Your task to perform on an android device: create a new album in the google photos Image 0: 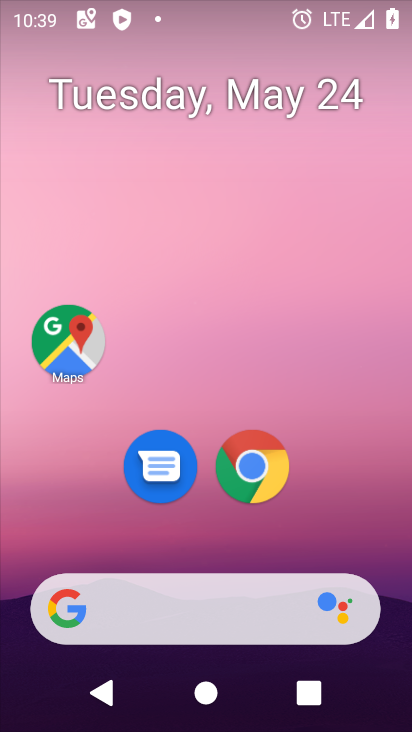
Step 0: drag from (396, 557) to (402, 365)
Your task to perform on an android device: create a new album in the google photos Image 1: 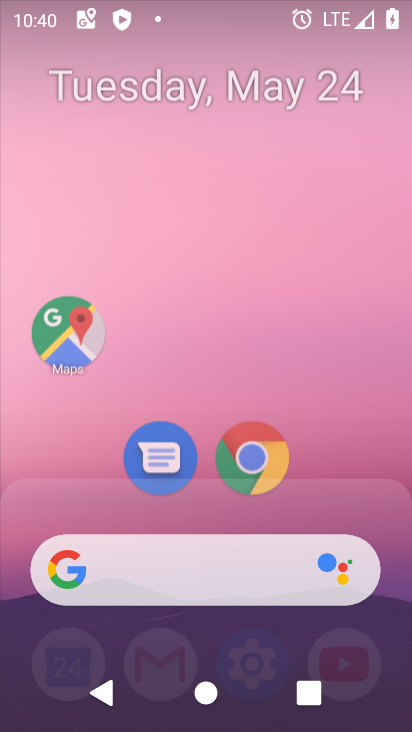
Step 1: drag from (366, 349) to (305, 80)
Your task to perform on an android device: create a new album in the google photos Image 2: 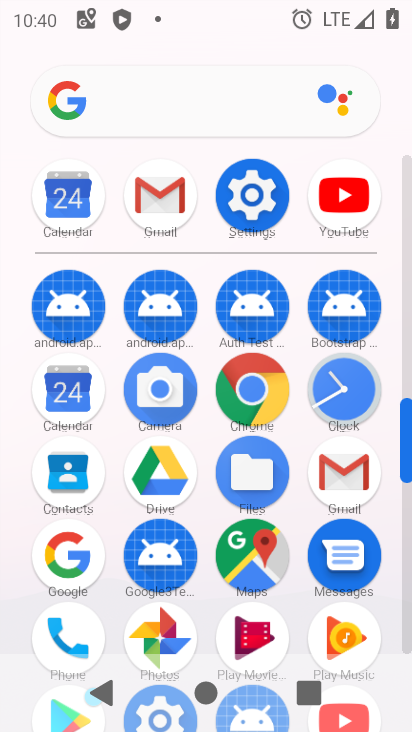
Step 2: drag from (392, 592) to (390, 353)
Your task to perform on an android device: create a new album in the google photos Image 3: 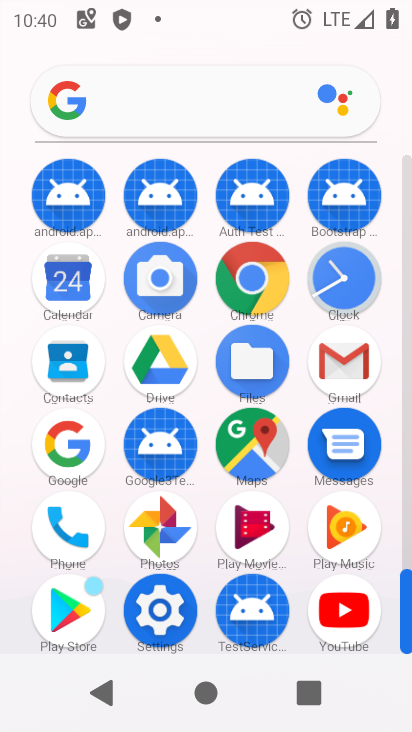
Step 3: click (181, 536)
Your task to perform on an android device: create a new album in the google photos Image 4: 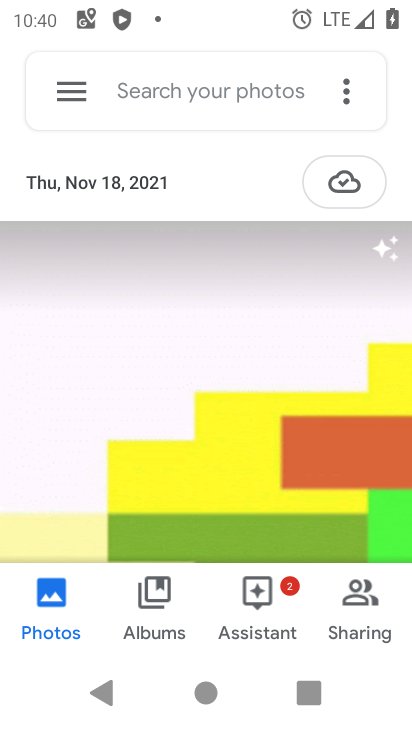
Step 4: click (345, 88)
Your task to perform on an android device: create a new album in the google photos Image 5: 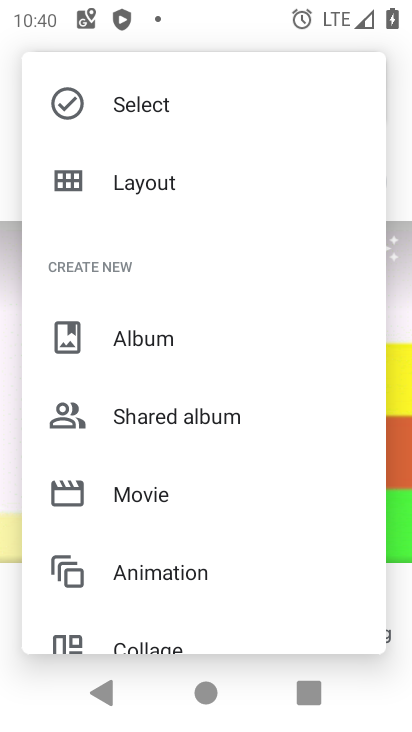
Step 5: click (173, 344)
Your task to perform on an android device: create a new album in the google photos Image 6: 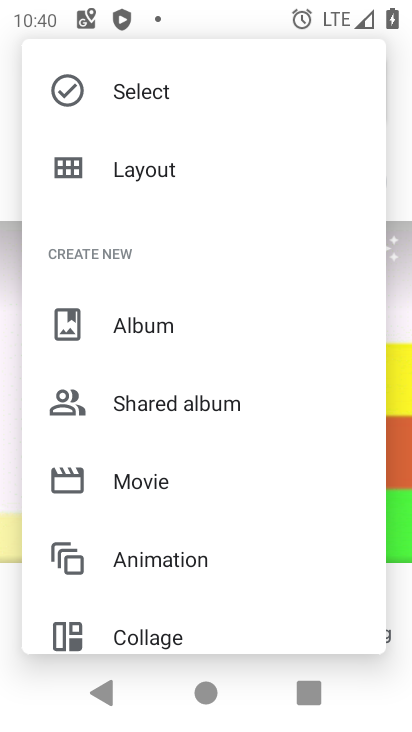
Step 6: click (125, 325)
Your task to perform on an android device: create a new album in the google photos Image 7: 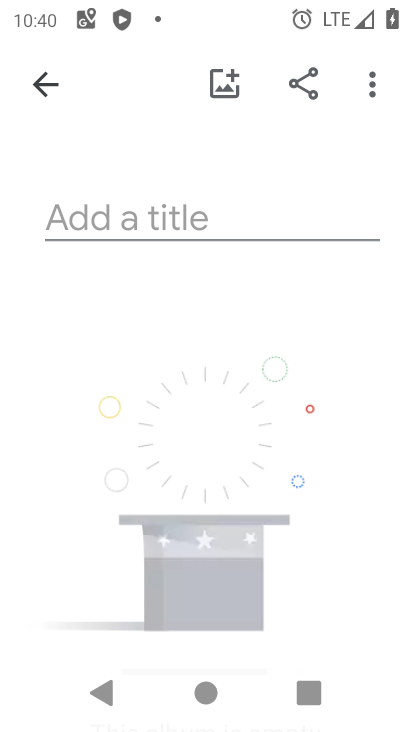
Step 7: click (205, 233)
Your task to perform on an android device: create a new album in the google photos Image 8: 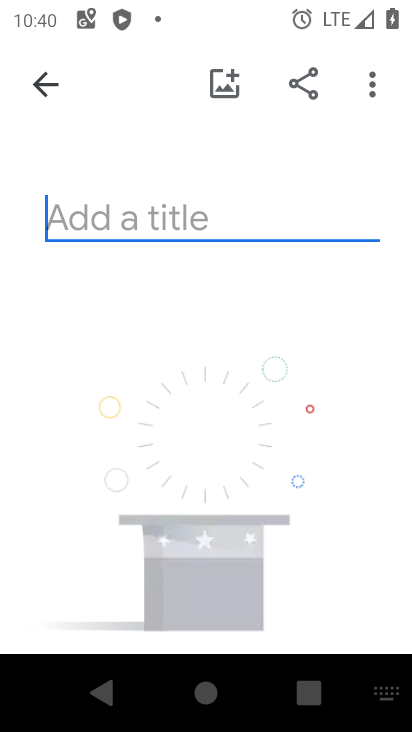
Step 8: type "fav"
Your task to perform on an android device: create a new album in the google photos Image 9: 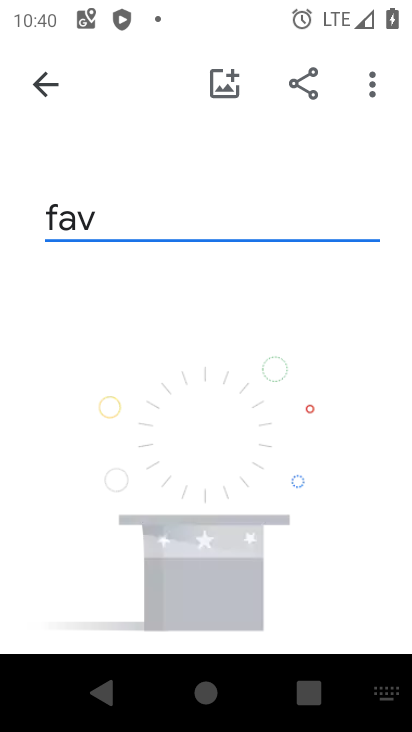
Step 9: drag from (369, 486) to (382, 288)
Your task to perform on an android device: create a new album in the google photos Image 10: 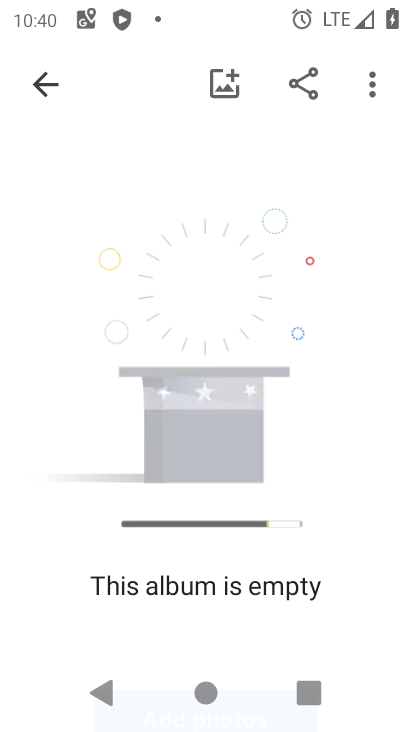
Step 10: drag from (313, 549) to (329, 325)
Your task to perform on an android device: create a new album in the google photos Image 11: 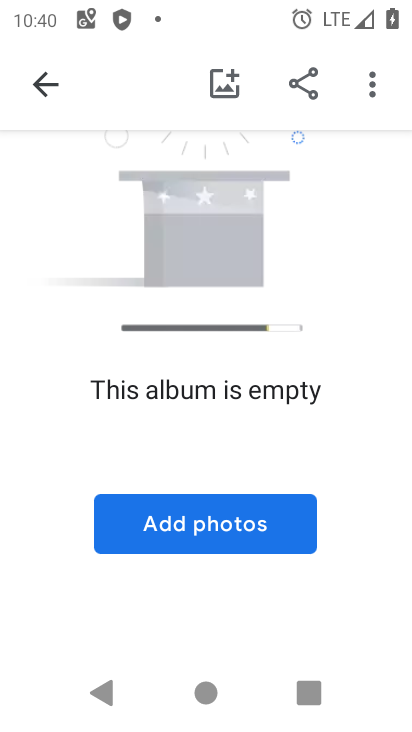
Step 11: click (253, 532)
Your task to perform on an android device: create a new album in the google photos Image 12: 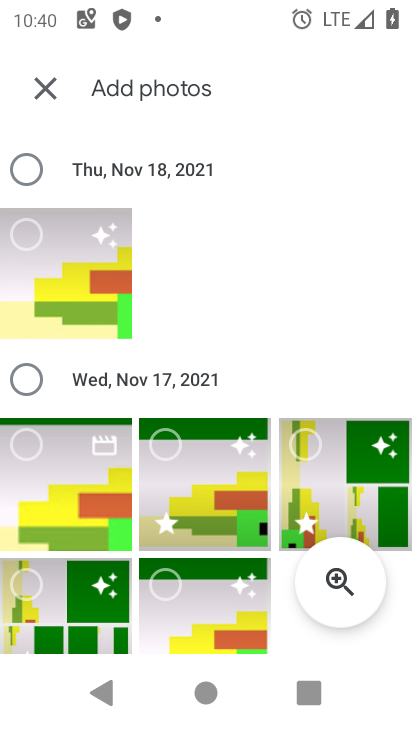
Step 12: click (58, 321)
Your task to perform on an android device: create a new album in the google photos Image 13: 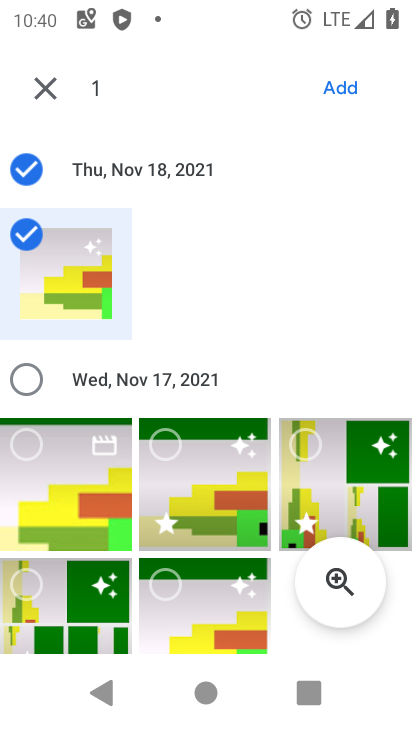
Step 13: click (339, 93)
Your task to perform on an android device: create a new album in the google photos Image 14: 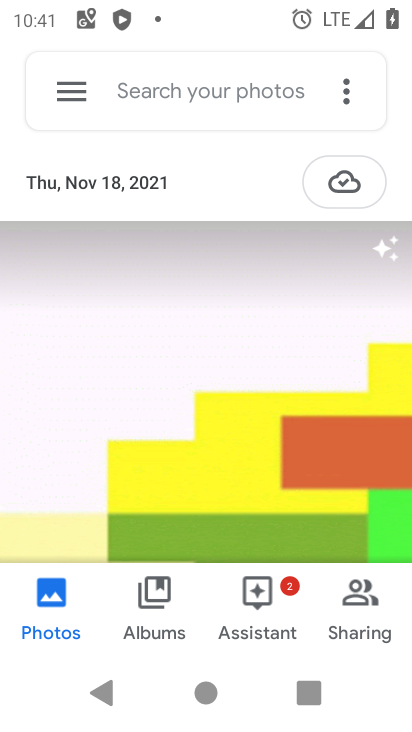
Step 14: task complete